Your task to perform on an android device: Open Chrome and go to the settings page Image 0: 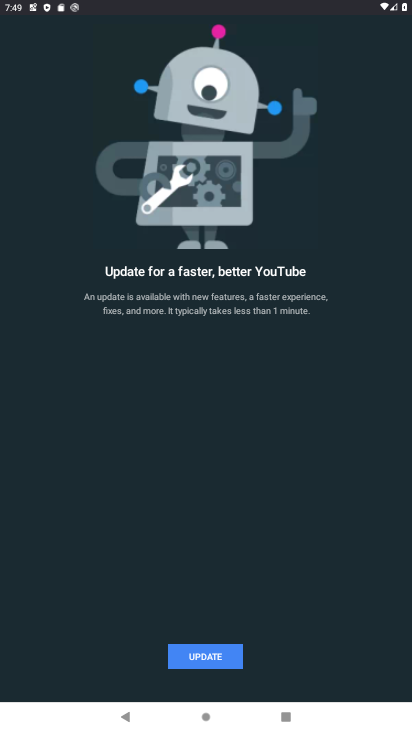
Step 0: press home button
Your task to perform on an android device: Open Chrome and go to the settings page Image 1: 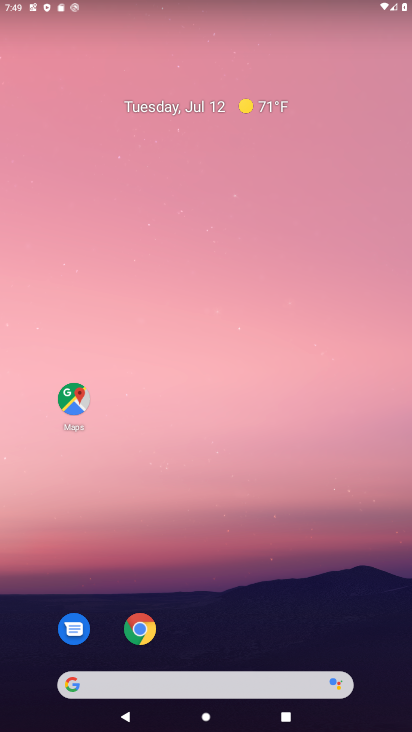
Step 1: click (140, 623)
Your task to perform on an android device: Open Chrome and go to the settings page Image 2: 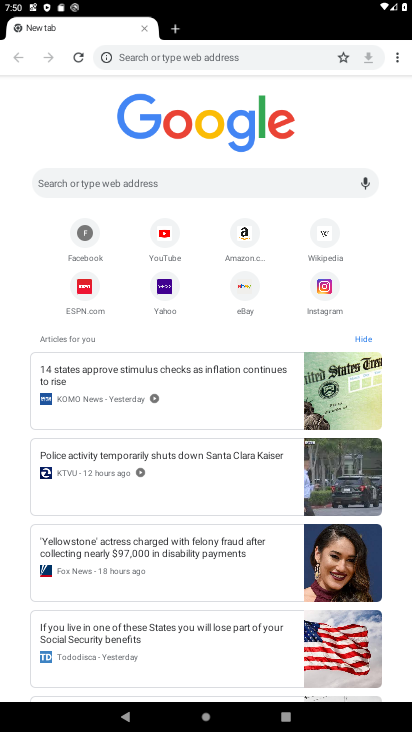
Step 2: click (399, 53)
Your task to perform on an android device: Open Chrome and go to the settings page Image 3: 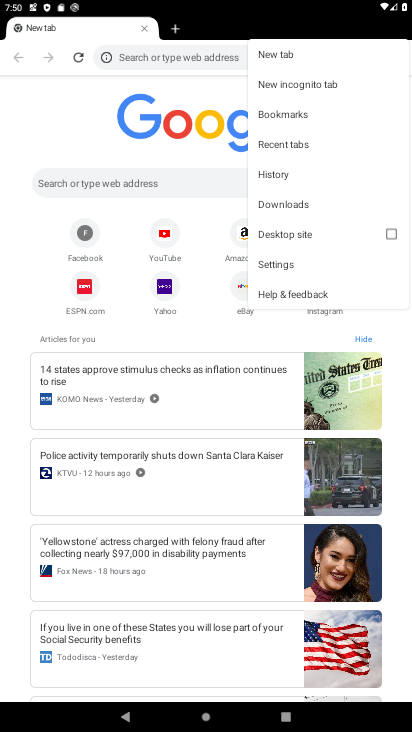
Step 3: click (274, 260)
Your task to perform on an android device: Open Chrome and go to the settings page Image 4: 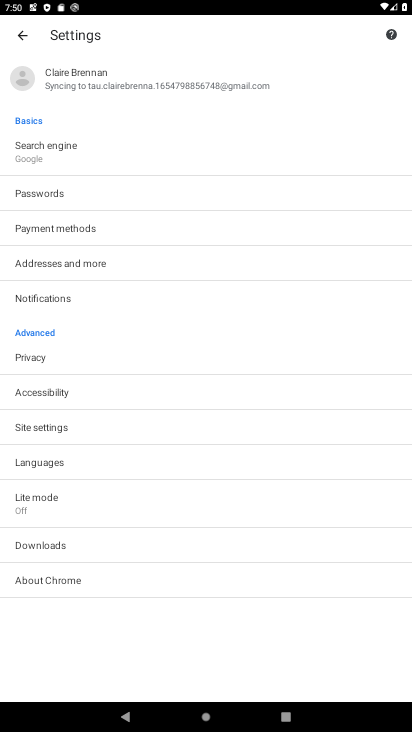
Step 4: task complete